Your task to perform on an android device: Go to Amazon Image 0: 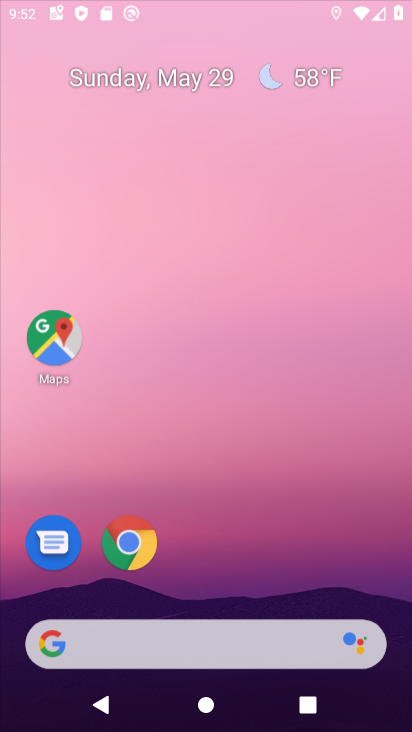
Step 0: click (340, 259)
Your task to perform on an android device: Go to Amazon Image 1: 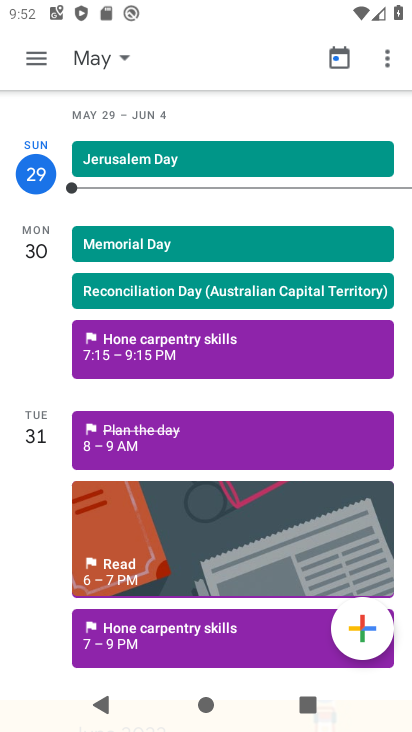
Step 1: press home button
Your task to perform on an android device: Go to Amazon Image 2: 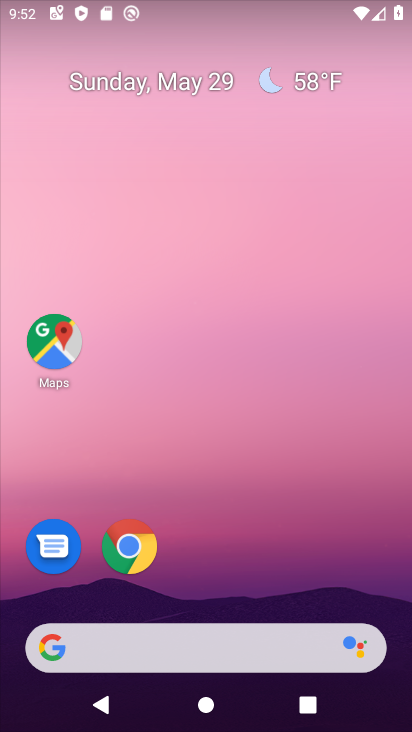
Step 2: drag from (169, 532) to (222, 113)
Your task to perform on an android device: Go to Amazon Image 3: 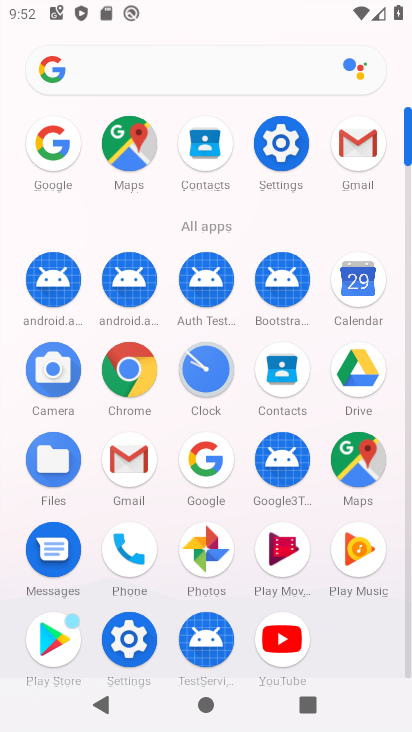
Step 3: click (142, 348)
Your task to perform on an android device: Go to Amazon Image 4: 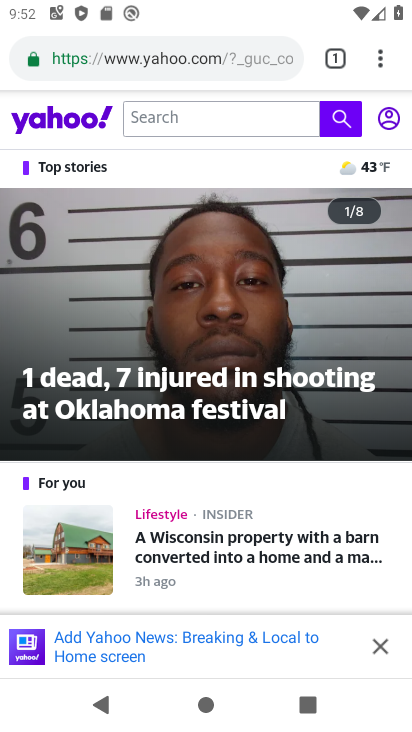
Step 4: click (143, 348)
Your task to perform on an android device: Go to Amazon Image 5: 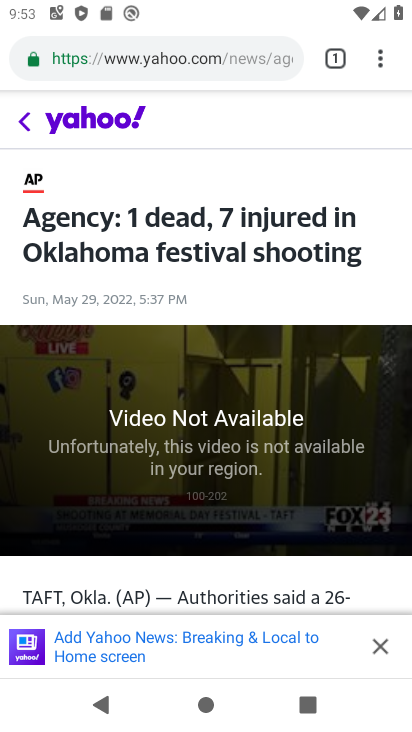
Step 5: click (143, 349)
Your task to perform on an android device: Go to Amazon Image 6: 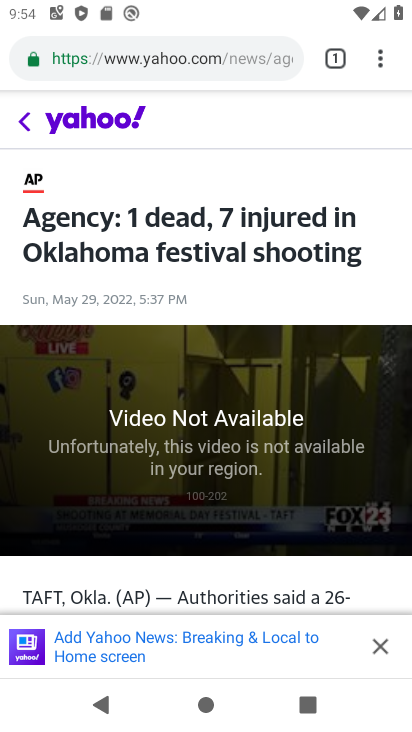
Step 6: click (143, 349)
Your task to perform on an android device: Go to Amazon Image 7: 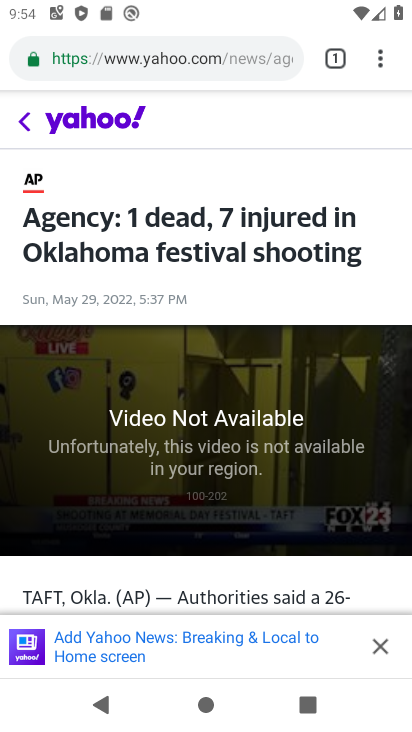
Step 7: click (328, 71)
Your task to perform on an android device: Go to Amazon Image 8: 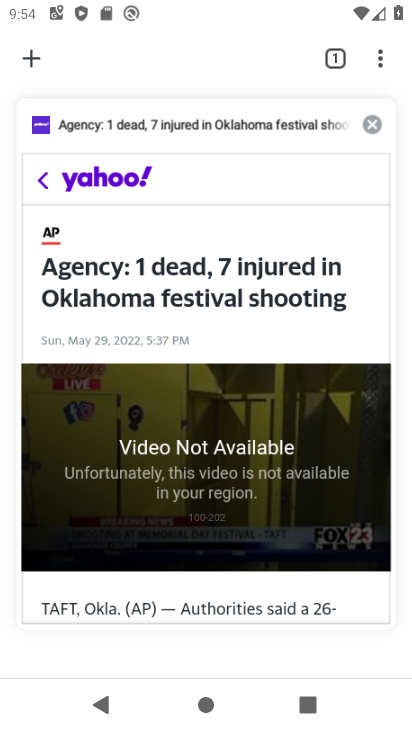
Step 8: click (374, 121)
Your task to perform on an android device: Go to Amazon Image 9: 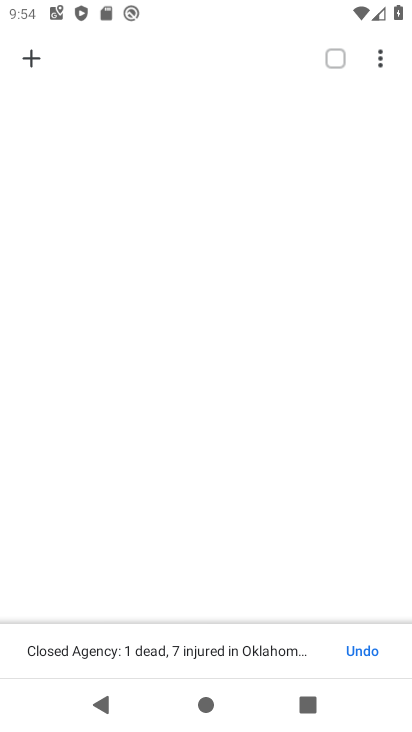
Step 9: click (36, 47)
Your task to perform on an android device: Go to Amazon Image 10: 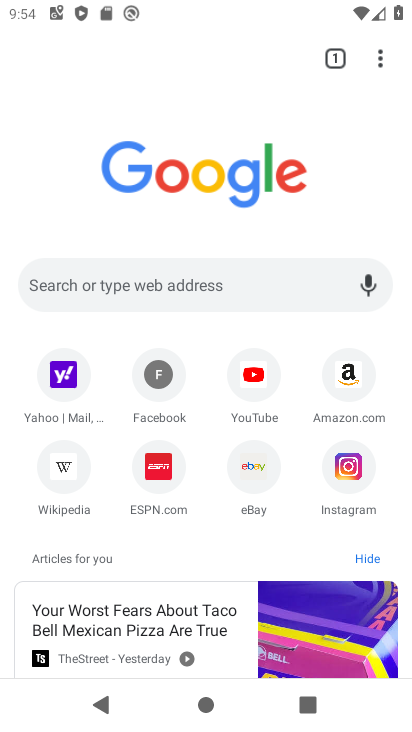
Step 10: click (342, 365)
Your task to perform on an android device: Go to Amazon Image 11: 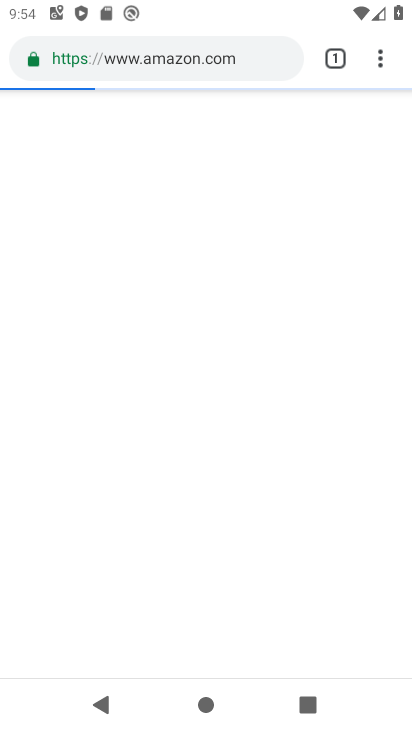
Step 11: task complete